Your task to perform on an android device: Find coffee shops on Maps Image 0: 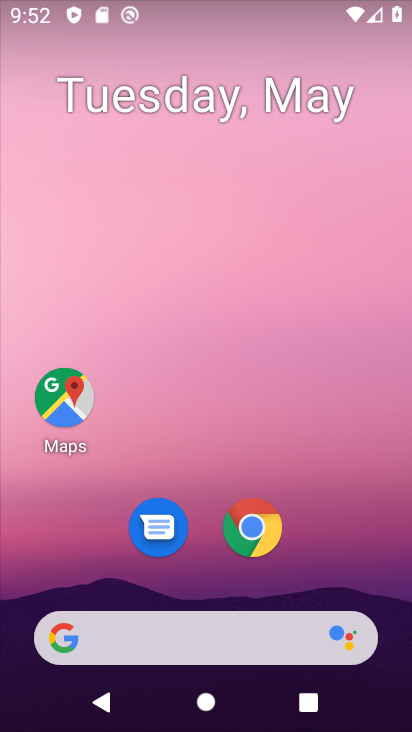
Step 0: click (57, 382)
Your task to perform on an android device: Find coffee shops on Maps Image 1: 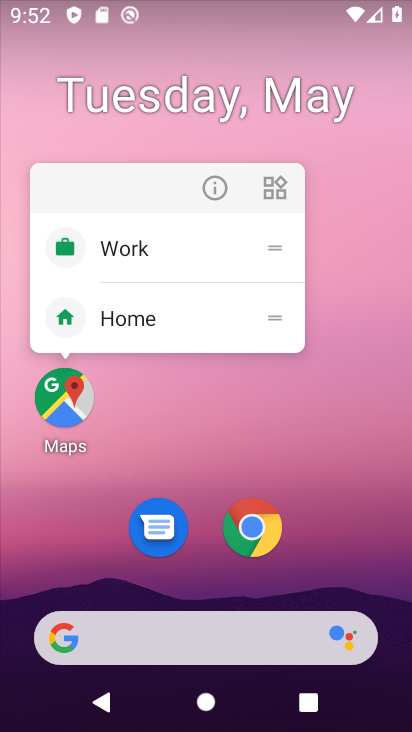
Step 1: click (57, 382)
Your task to perform on an android device: Find coffee shops on Maps Image 2: 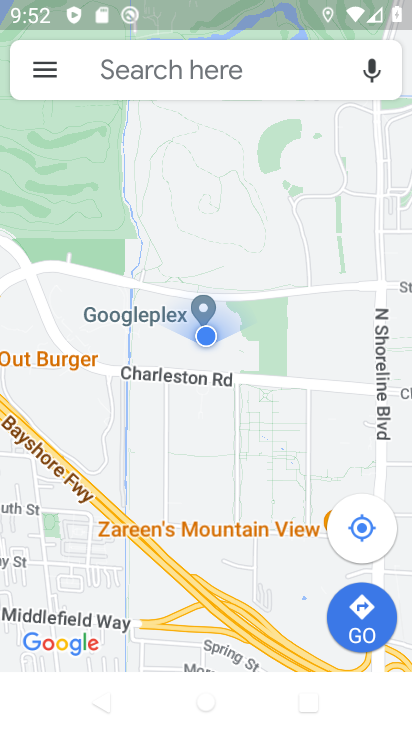
Step 2: click (169, 73)
Your task to perform on an android device: Find coffee shops on Maps Image 3: 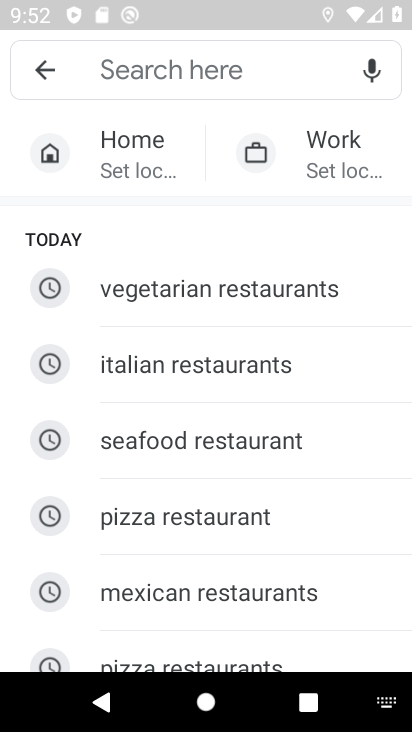
Step 3: type "coffee"
Your task to perform on an android device: Find coffee shops on Maps Image 4: 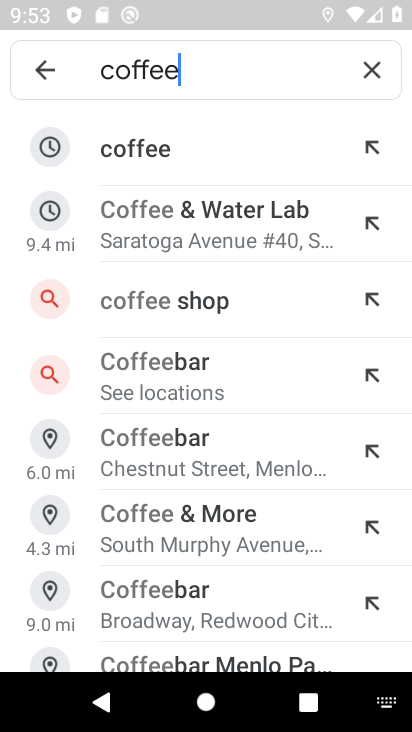
Step 4: click (227, 133)
Your task to perform on an android device: Find coffee shops on Maps Image 5: 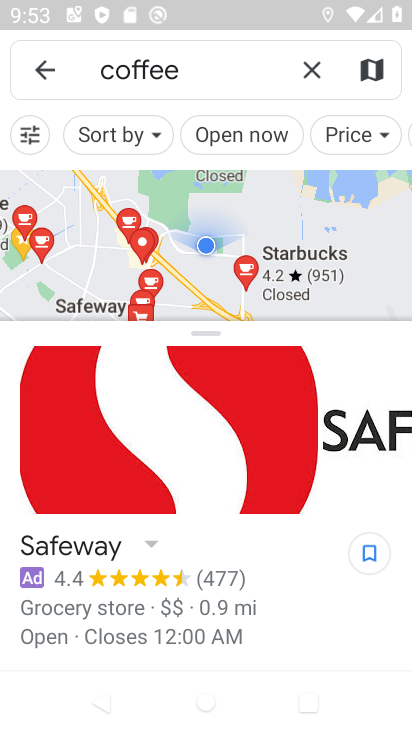
Step 5: task complete